Your task to perform on an android device: Go to Reddit.com Image 0: 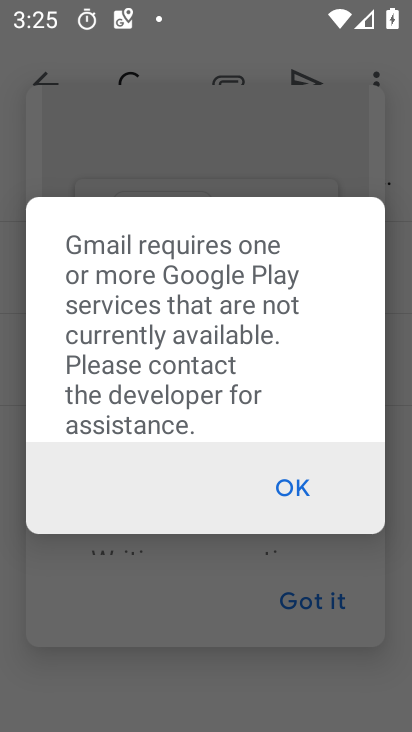
Step 0: press home button
Your task to perform on an android device: Go to Reddit.com Image 1: 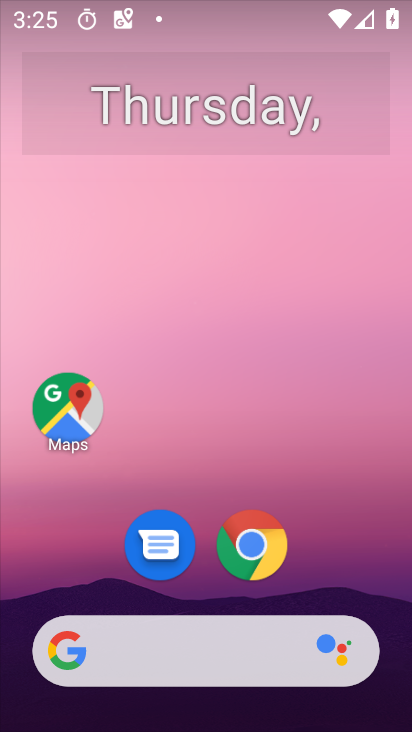
Step 1: click (248, 541)
Your task to perform on an android device: Go to Reddit.com Image 2: 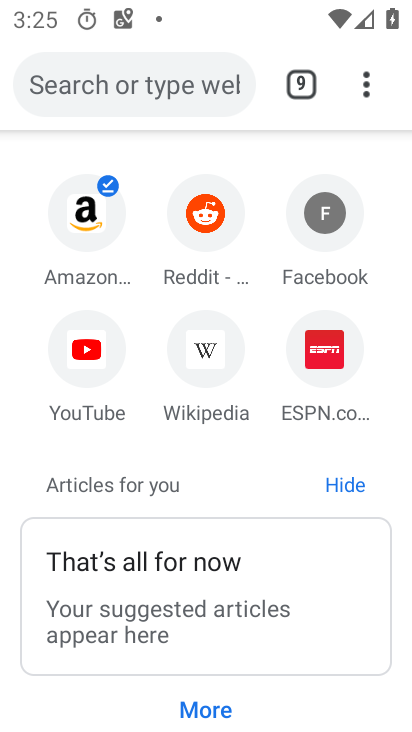
Step 2: click (207, 212)
Your task to perform on an android device: Go to Reddit.com Image 3: 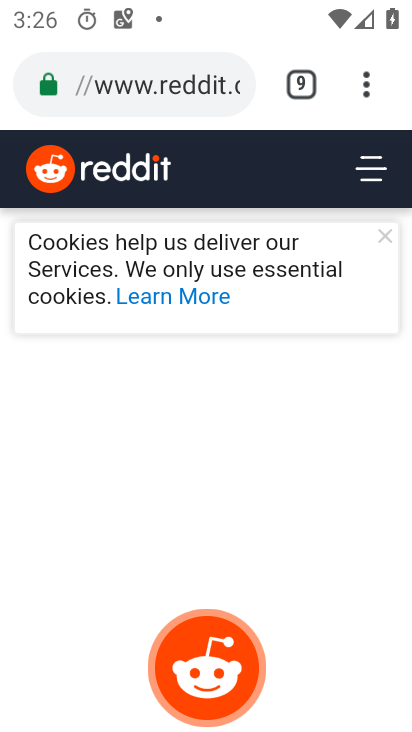
Step 3: task complete